Your task to perform on an android device: Open Google Chrome and open the bookmarks view Image 0: 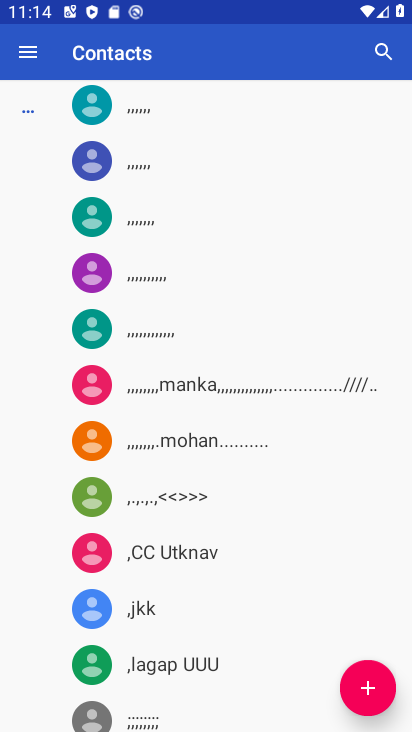
Step 0: press home button
Your task to perform on an android device: Open Google Chrome and open the bookmarks view Image 1: 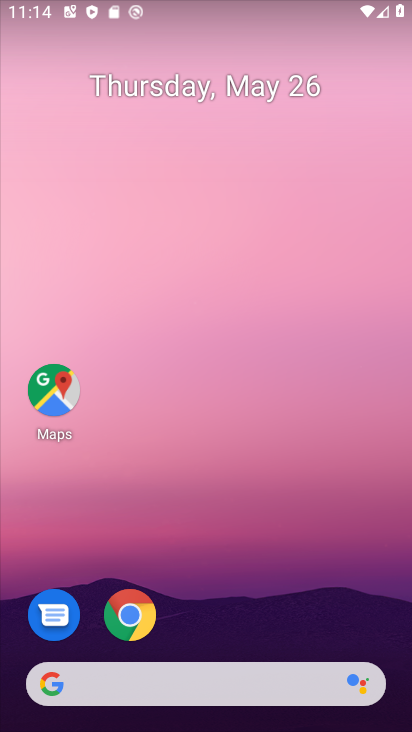
Step 1: drag from (295, 699) to (317, 117)
Your task to perform on an android device: Open Google Chrome and open the bookmarks view Image 2: 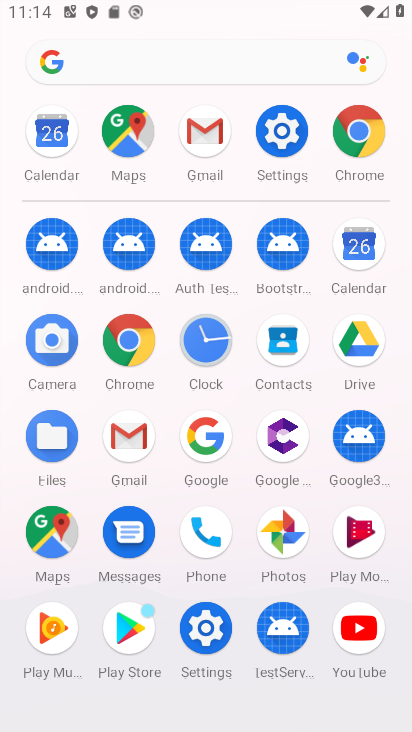
Step 2: click (142, 334)
Your task to perform on an android device: Open Google Chrome and open the bookmarks view Image 3: 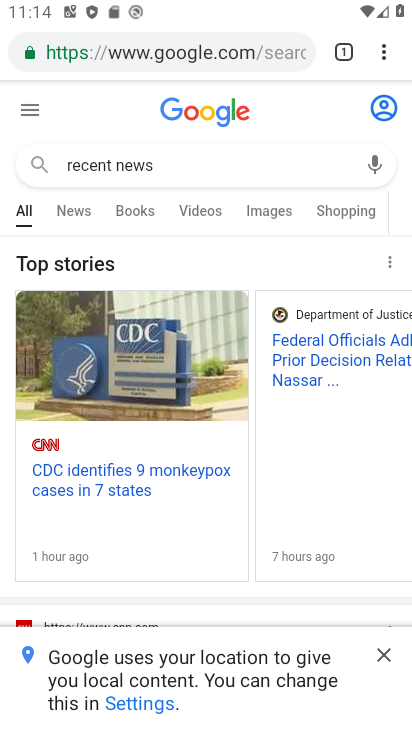
Step 3: task complete